Your task to perform on an android device: turn on data saver in the chrome app Image 0: 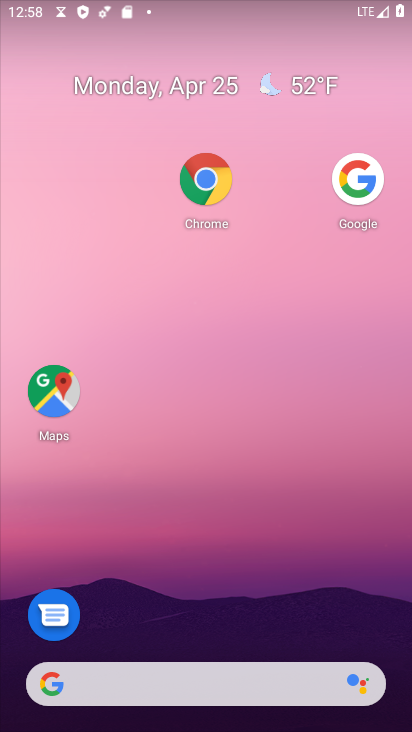
Step 0: drag from (170, 665) to (256, 293)
Your task to perform on an android device: turn on data saver in the chrome app Image 1: 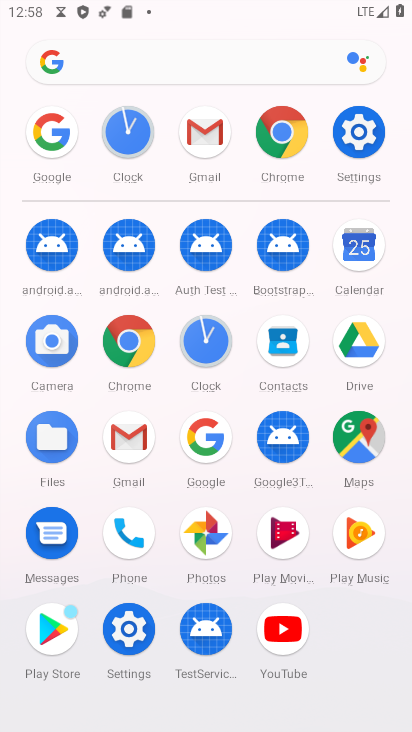
Step 1: click (284, 144)
Your task to perform on an android device: turn on data saver in the chrome app Image 2: 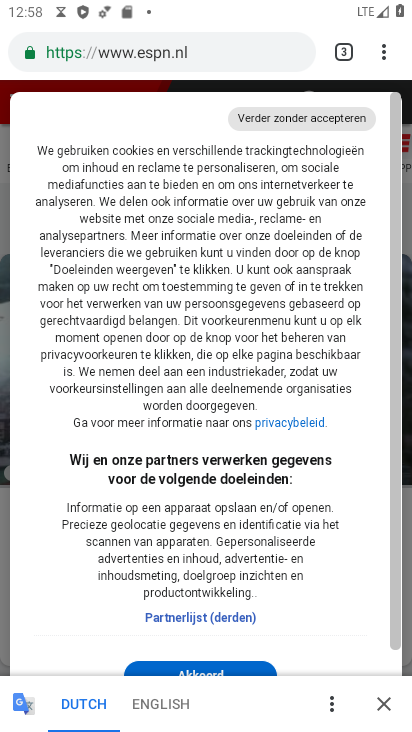
Step 2: drag from (382, 52) to (245, 662)
Your task to perform on an android device: turn on data saver in the chrome app Image 3: 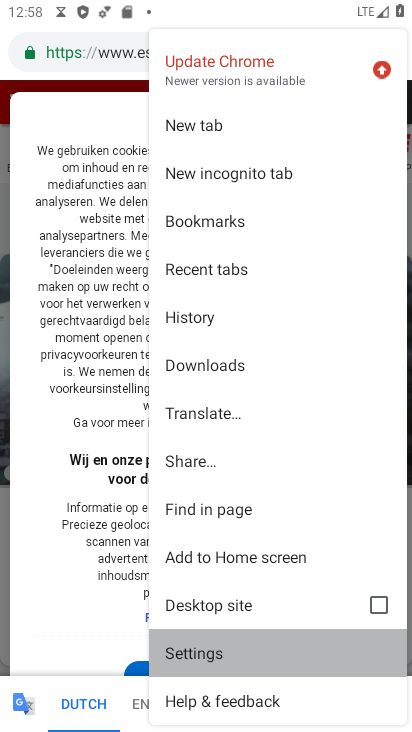
Step 3: click (246, 662)
Your task to perform on an android device: turn on data saver in the chrome app Image 4: 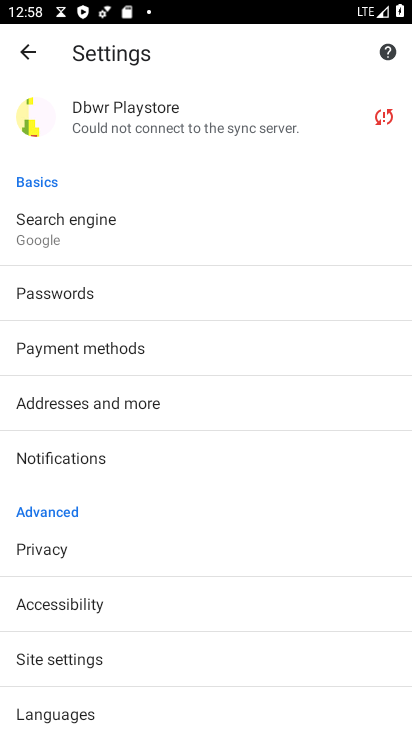
Step 4: drag from (130, 654) to (301, 248)
Your task to perform on an android device: turn on data saver in the chrome app Image 5: 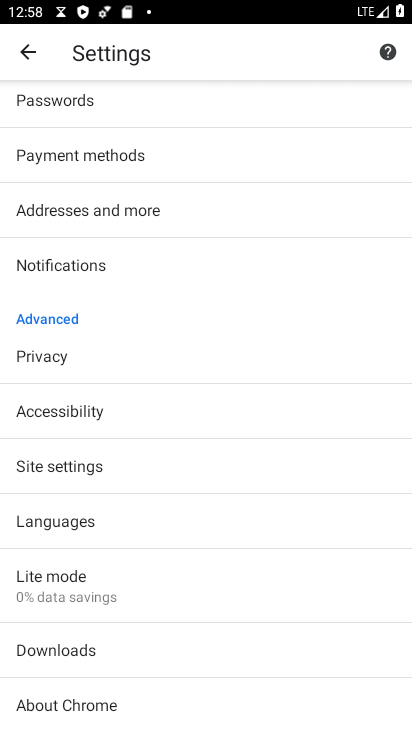
Step 5: click (73, 594)
Your task to perform on an android device: turn on data saver in the chrome app Image 6: 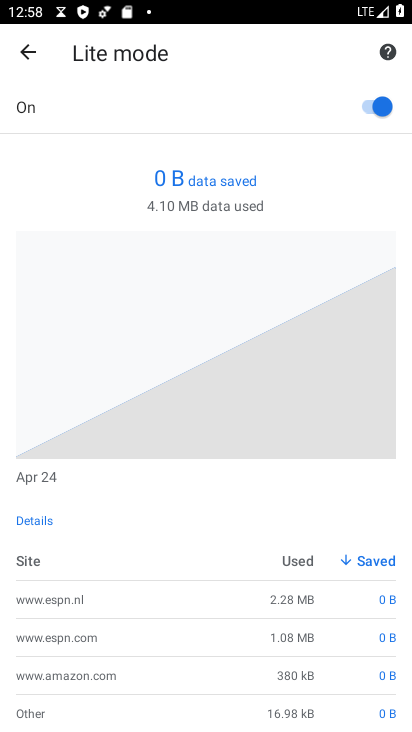
Step 6: task complete